Your task to perform on an android device: Show me popular videos on Youtube Image 0: 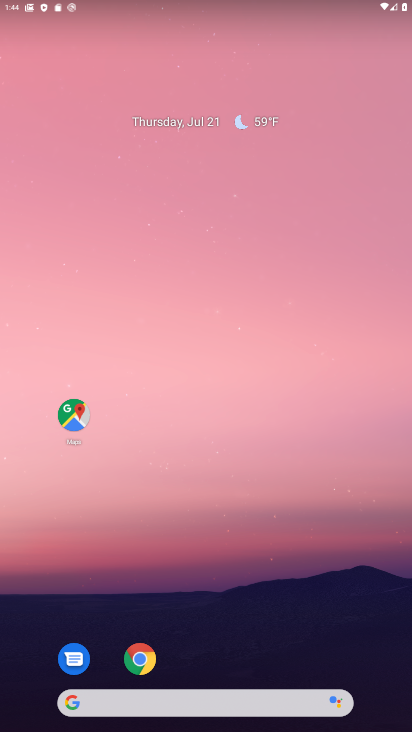
Step 0: drag from (279, 629) to (123, 81)
Your task to perform on an android device: Show me popular videos on Youtube Image 1: 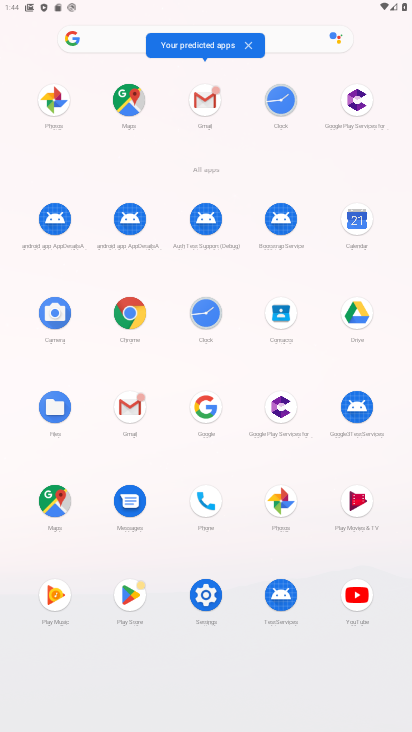
Step 1: click (365, 596)
Your task to perform on an android device: Show me popular videos on Youtube Image 2: 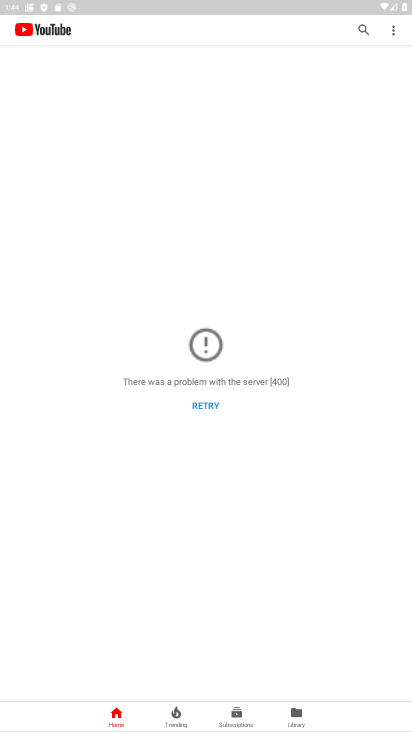
Step 2: task complete